Your task to perform on an android device: Where can I buy a nice beach bag? Image 0: 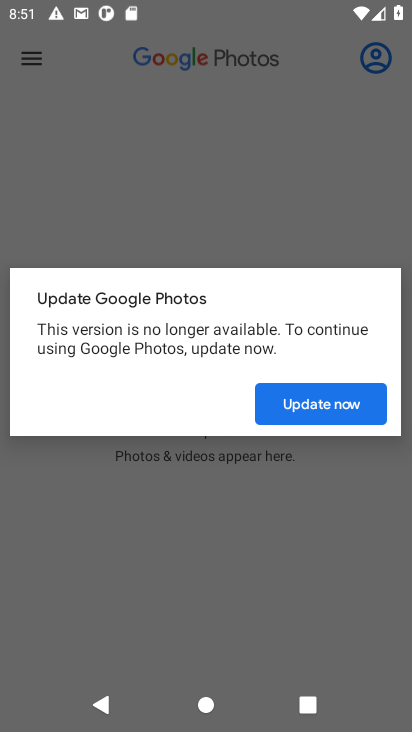
Step 0: press home button
Your task to perform on an android device: Where can I buy a nice beach bag? Image 1: 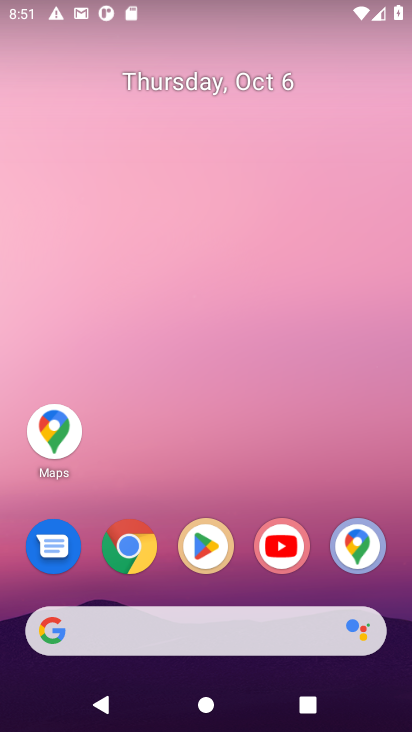
Step 1: click (131, 544)
Your task to perform on an android device: Where can I buy a nice beach bag? Image 2: 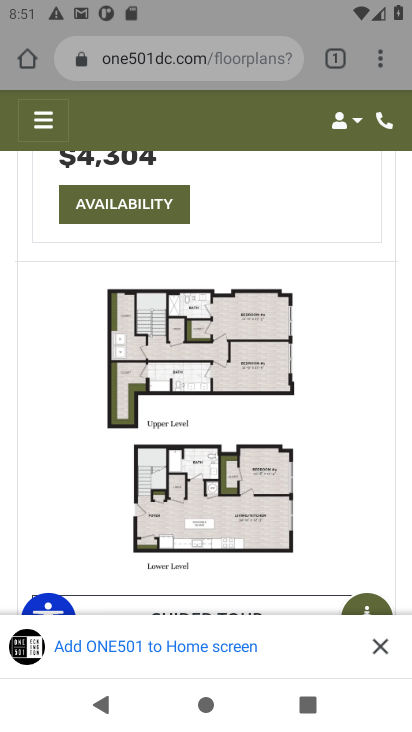
Step 2: click (150, 43)
Your task to perform on an android device: Where can I buy a nice beach bag? Image 3: 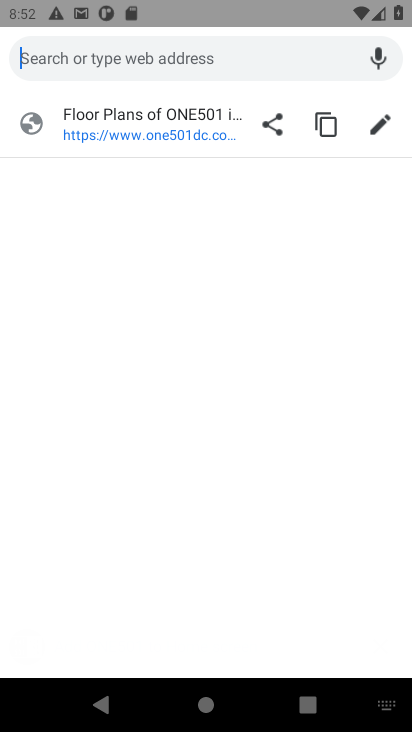
Step 3: type "nice beach bag?"
Your task to perform on an android device: Where can I buy a nice beach bag? Image 4: 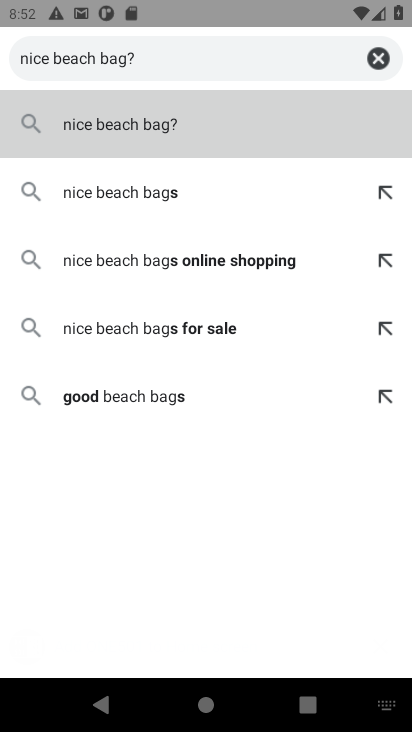
Step 4: click (114, 129)
Your task to perform on an android device: Where can I buy a nice beach bag? Image 5: 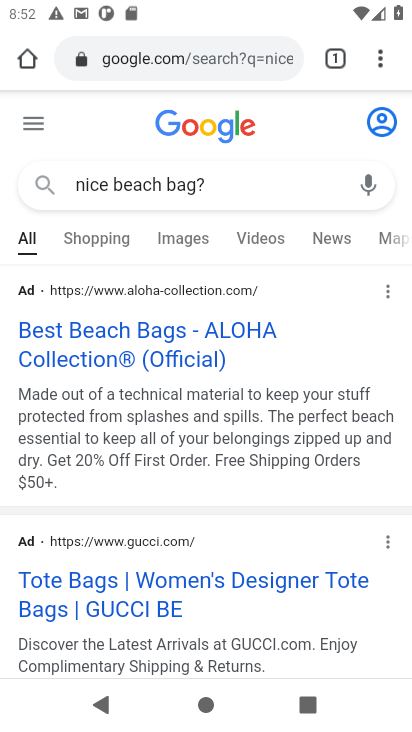
Step 5: click (79, 326)
Your task to perform on an android device: Where can I buy a nice beach bag? Image 6: 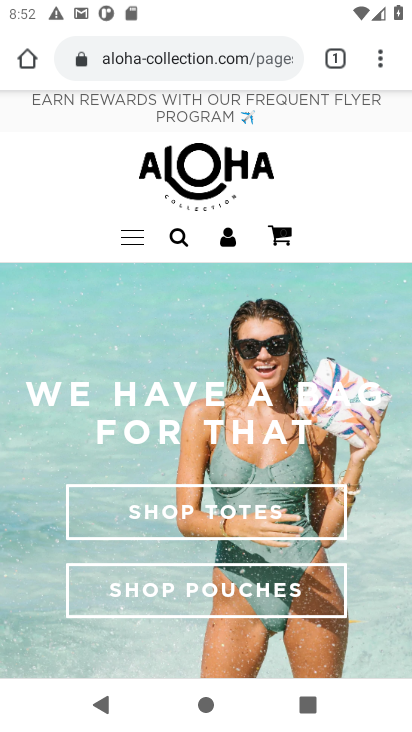
Step 6: task complete